Your task to perform on an android device: Open privacy settings Image 0: 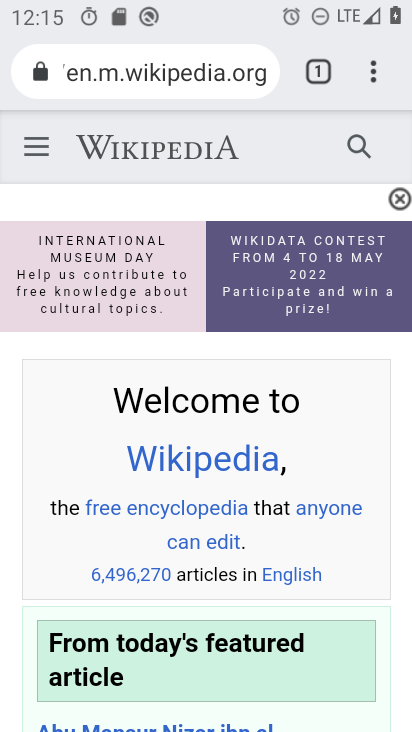
Step 0: press home button
Your task to perform on an android device: Open privacy settings Image 1: 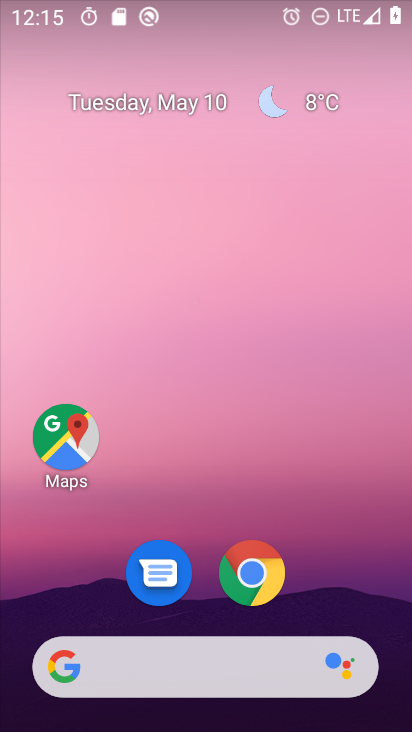
Step 1: drag from (331, 605) to (323, 190)
Your task to perform on an android device: Open privacy settings Image 2: 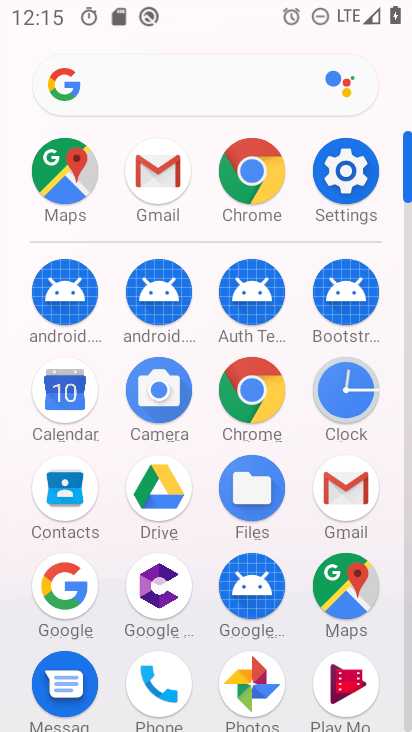
Step 2: click (365, 171)
Your task to perform on an android device: Open privacy settings Image 3: 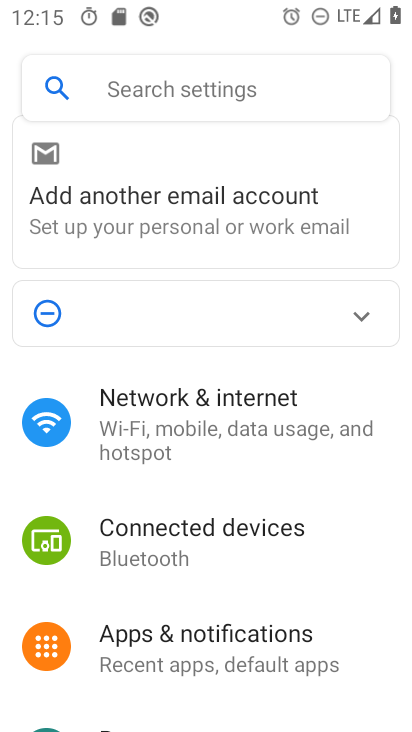
Step 3: drag from (241, 519) to (256, 47)
Your task to perform on an android device: Open privacy settings Image 4: 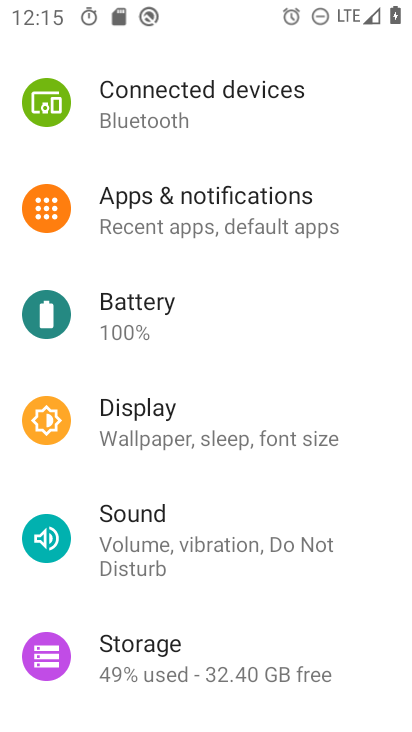
Step 4: drag from (276, 600) to (236, 111)
Your task to perform on an android device: Open privacy settings Image 5: 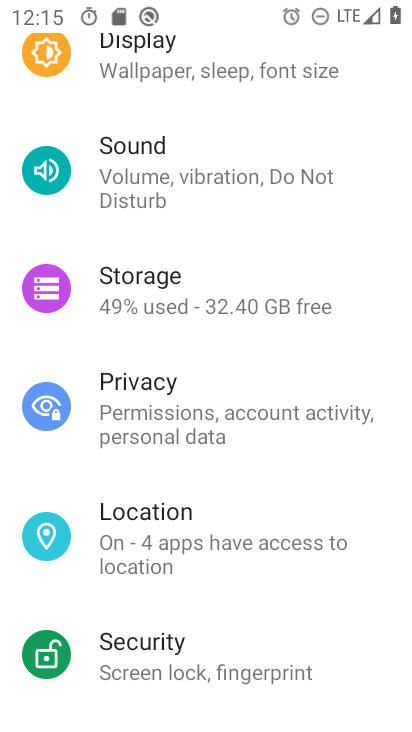
Step 5: click (229, 410)
Your task to perform on an android device: Open privacy settings Image 6: 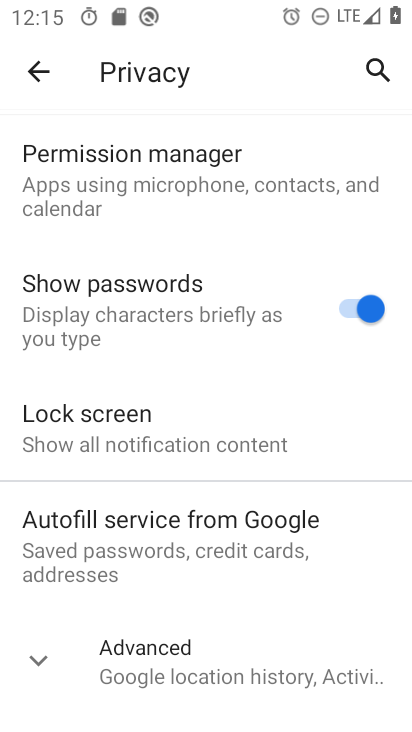
Step 6: task complete